Your task to perform on an android device: create a new album in the google photos Image 0: 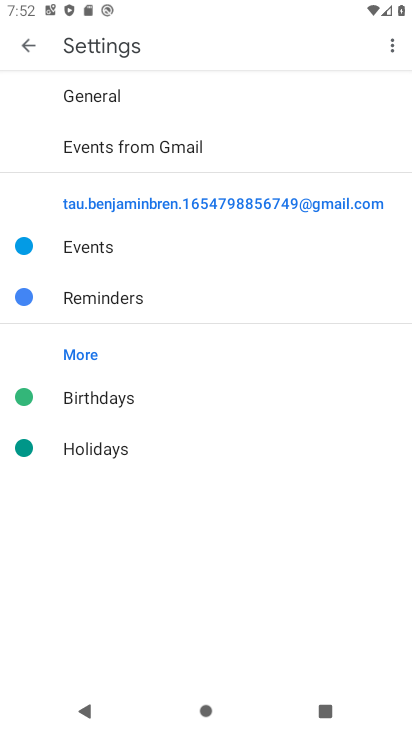
Step 0: press home button
Your task to perform on an android device: create a new album in the google photos Image 1: 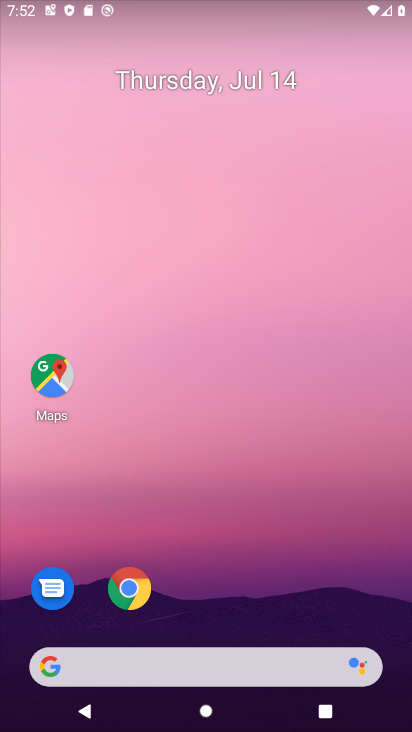
Step 1: drag from (276, 608) to (235, 143)
Your task to perform on an android device: create a new album in the google photos Image 2: 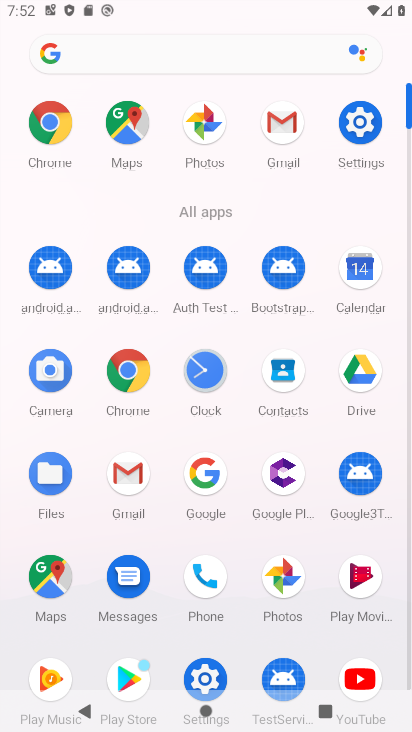
Step 2: click (280, 571)
Your task to perform on an android device: create a new album in the google photos Image 3: 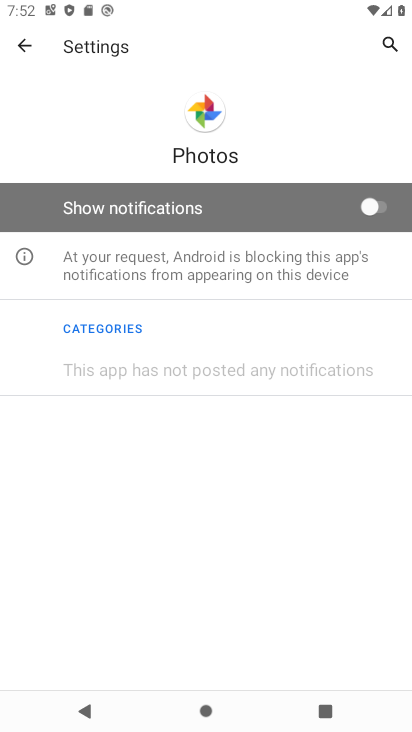
Step 3: click (27, 49)
Your task to perform on an android device: create a new album in the google photos Image 4: 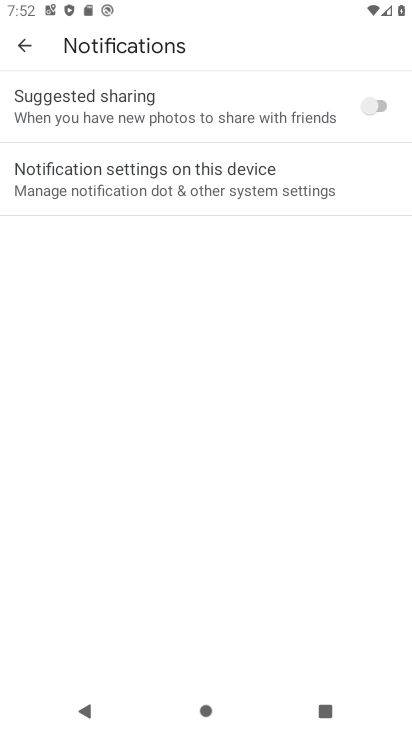
Step 4: click (27, 49)
Your task to perform on an android device: create a new album in the google photos Image 5: 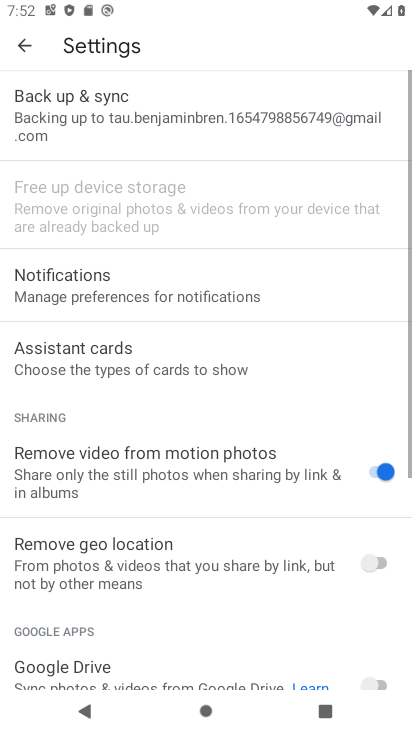
Step 5: click (27, 49)
Your task to perform on an android device: create a new album in the google photos Image 6: 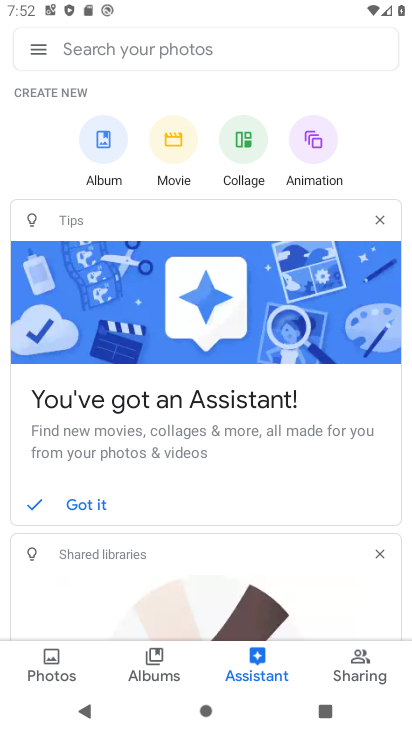
Step 6: click (128, 672)
Your task to perform on an android device: create a new album in the google photos Image 7: 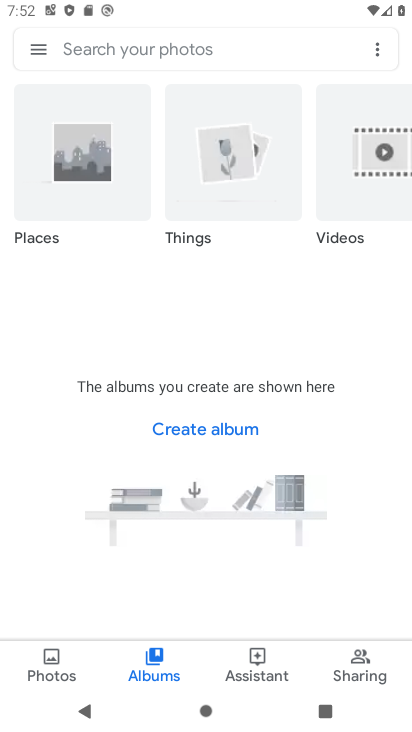
Step 7: click (242, 426)
Your task to perform on an android device: create a new album in the google photos Image 8: 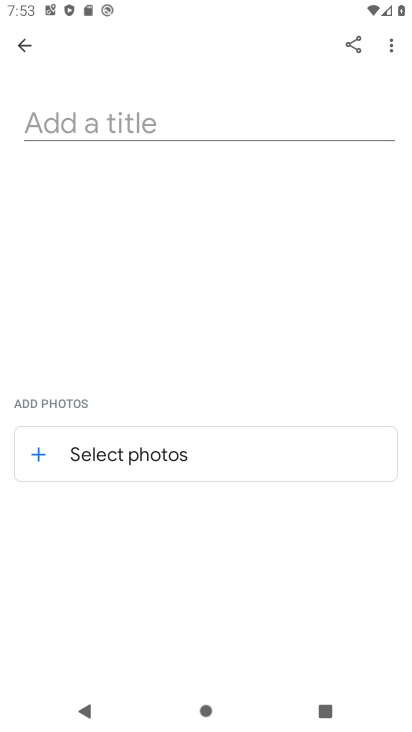
Step 8: click (139, 125)
Your task to perform on an android device: create a new album in the google photos Image 9: 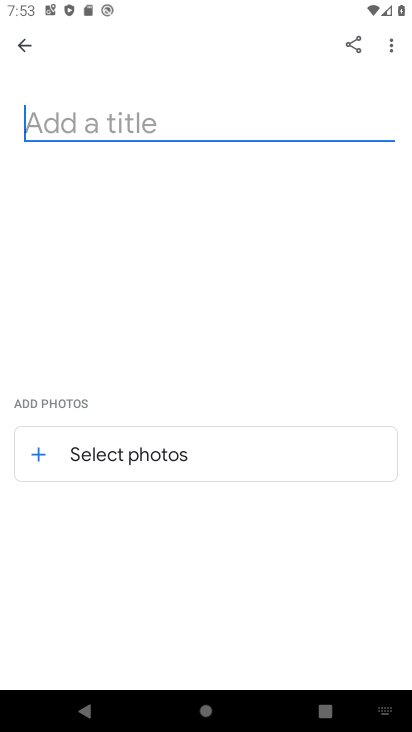
Step 9: type "kulcha"
Your task to perform on an android device: create a new album in the google photos Image 10: 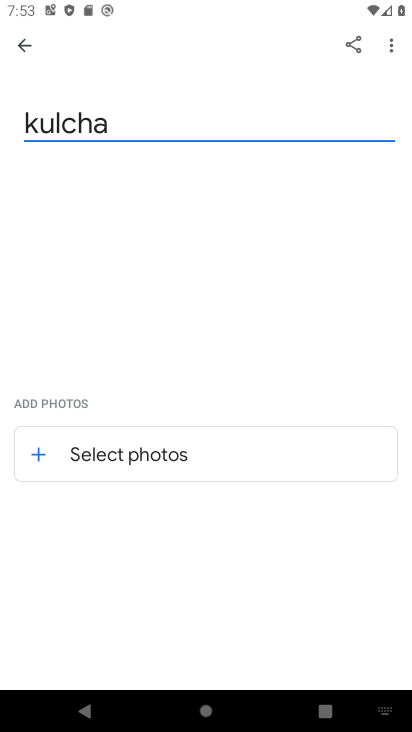
Step 10: click (389, 42)
Your task to perform on an android device: create a new album in the google photos Image 11: 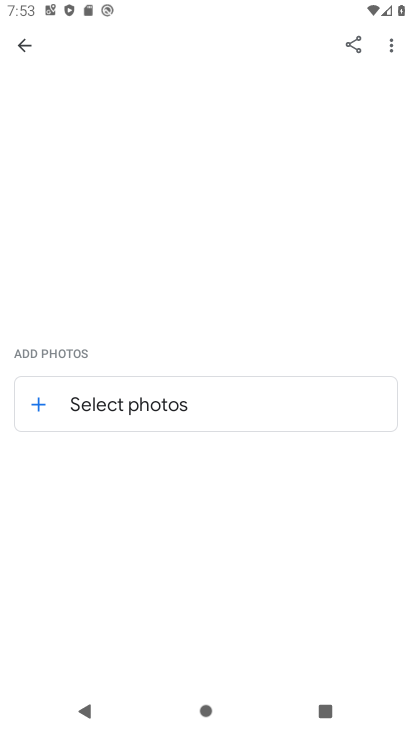
Step 11: click (395, 46)
Your task to perform on an android device: create a new album in the google photos Image 12: 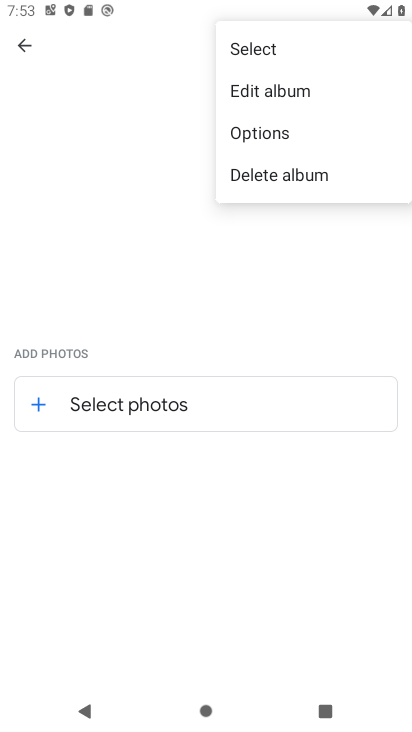
Step 12: click (24, 154)
Your task to perform on an android device: create a new album in the google photos Image 13: 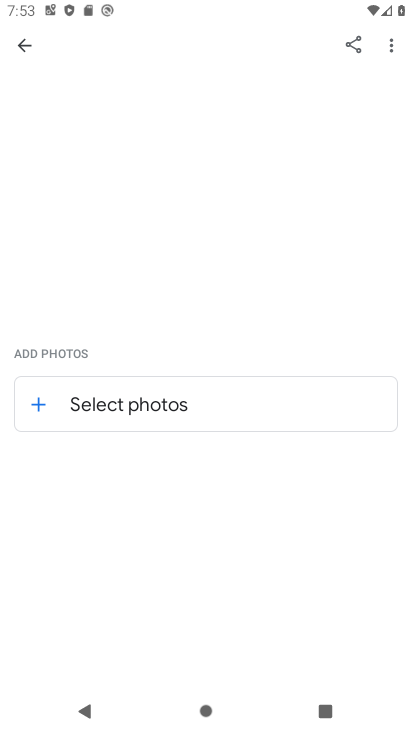
Step 13: click (51, 169)
Your task to perform on an android device: create a new album in the google photos Image 14: 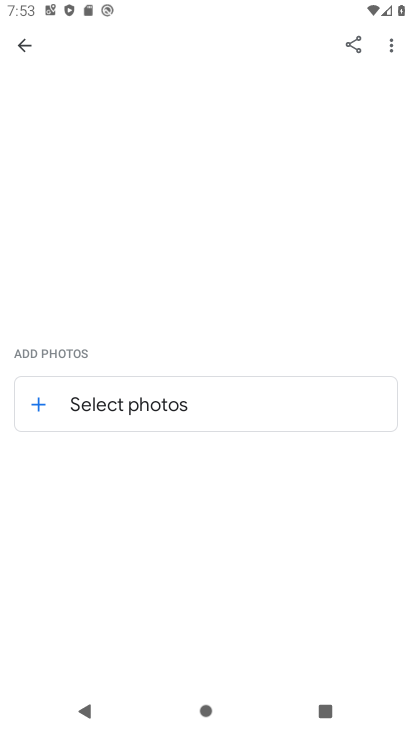
Step 14: click (190, 401)
Your task to perform on an android device: create a new album in the google photos Image 15: 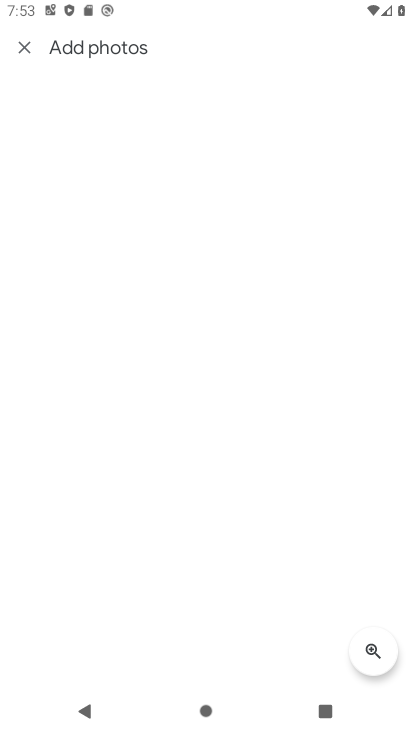
Step 15: click (18, 46)
Your task to perform on an android device: create a new album in the google photos Image 16: 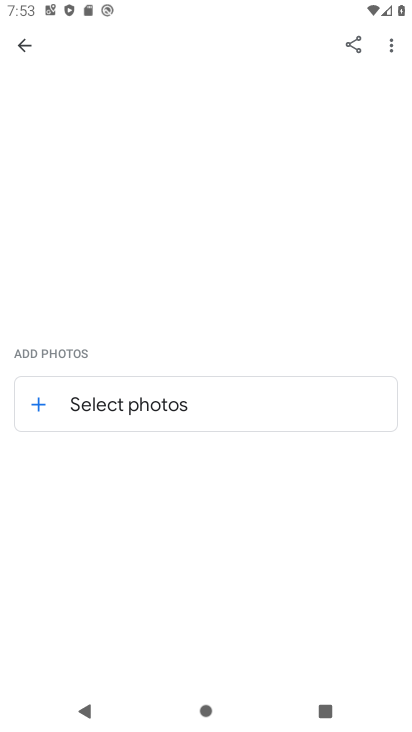
Step 16: click (18, 46)
Your task to perform on an android device: create a new album in the google photos Image 17: 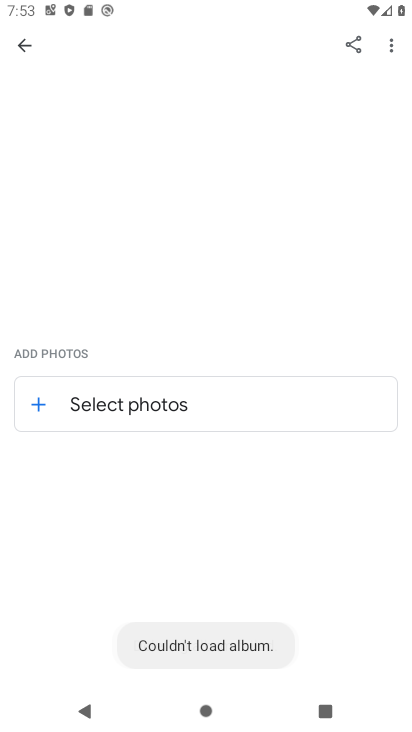
Step 17: click (18, 46)
Your task to perform on an android device: create a new album in the google photos Image 18: 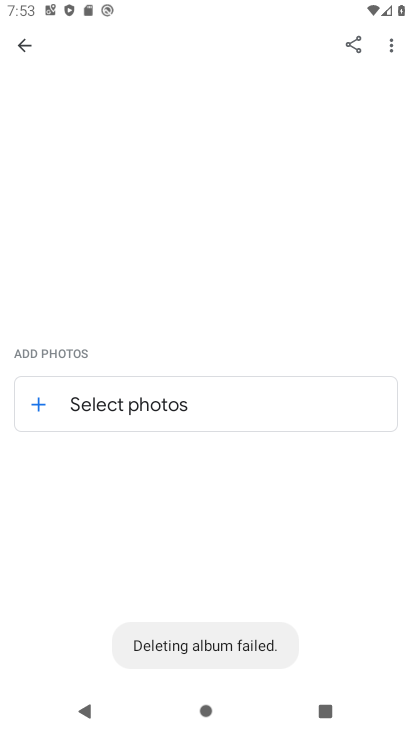
Step 18: click (398, 39)
Your task to perform on an android device: create a new album in the google photos Image 19: 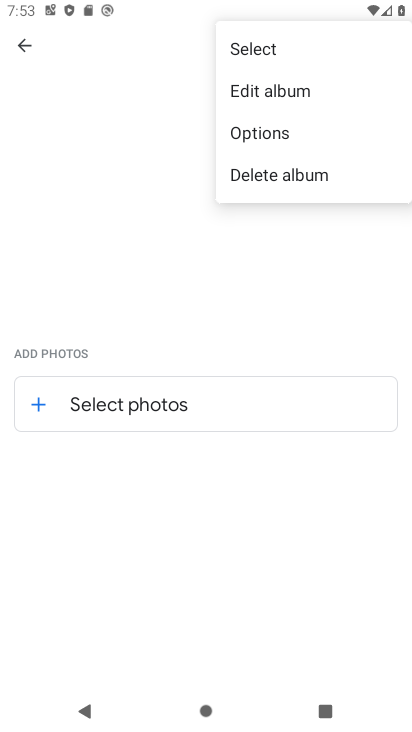
Step 19: click (270, 41)
Your task to perform on an android device: create a new album in the google photos Image 20: 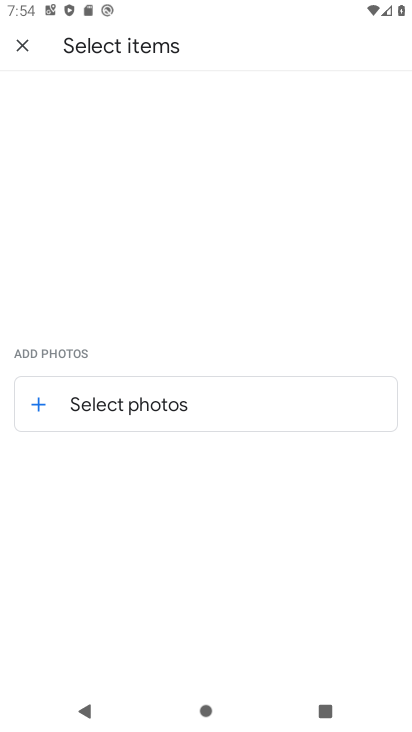
Step 20: task complete